Your task to perform on an android device: What's the weather going to be this weekend? Image 0: 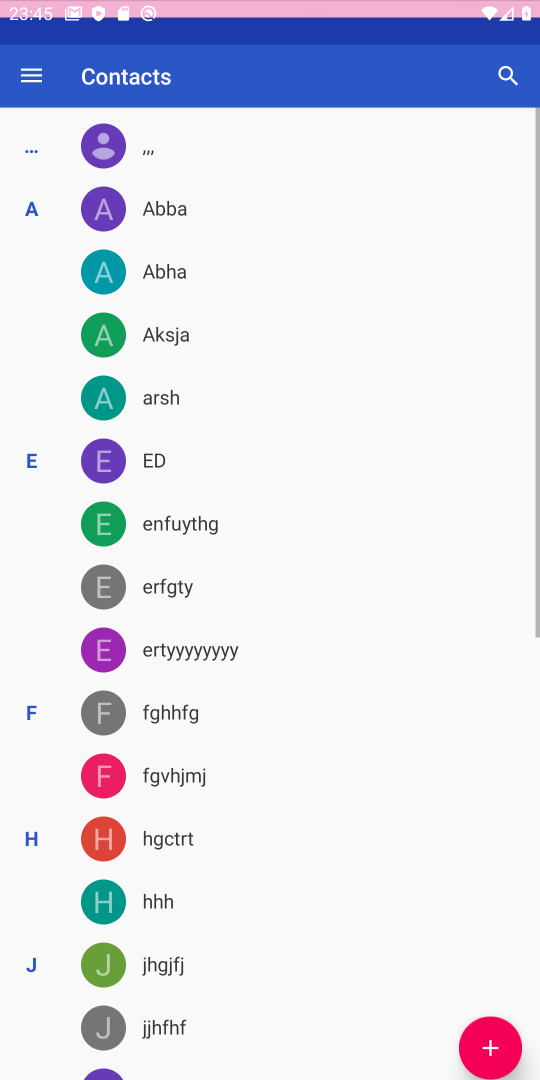
Step 0: press back button
Your task to perform on an android device: What's the weather going to be this weekend? Image 1: 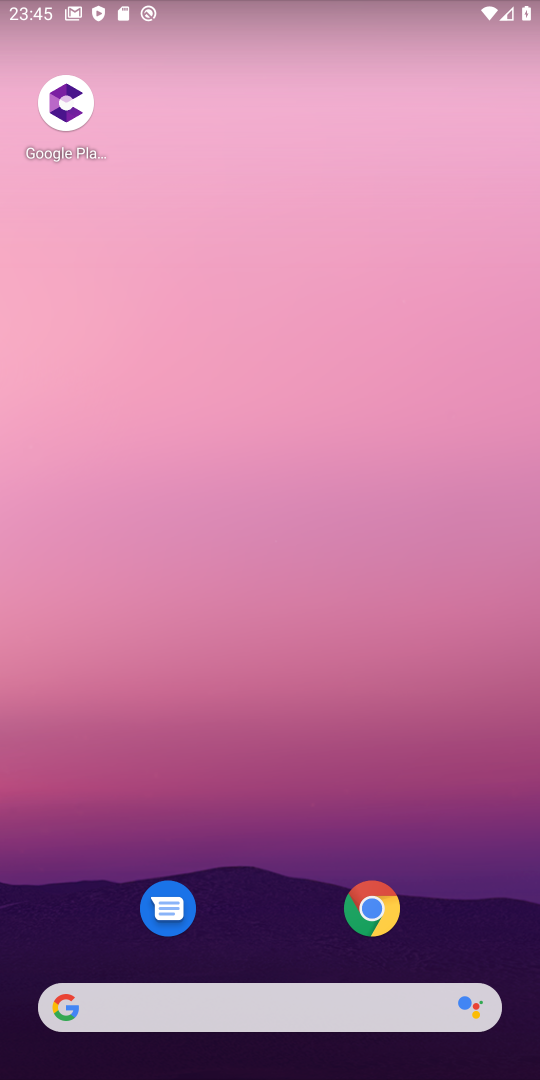
Step 1: drag from (425, 937) to (260, 152)
Your task to perform on an android device: What's the weather going to be this weekend? Image 2: 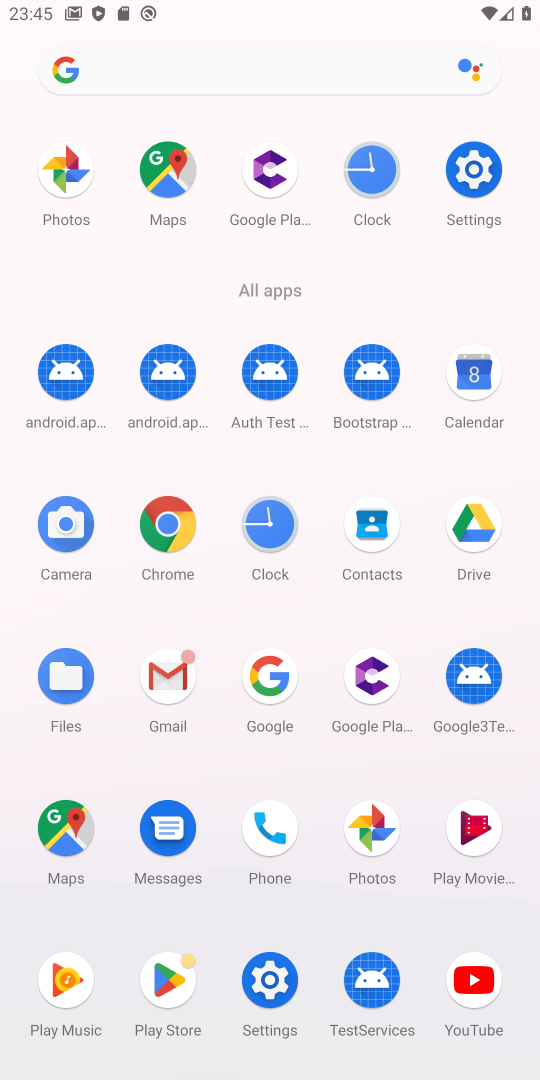
Step 2: click (174, 534)
Your task to perform on an android device: What's the weather going to be this weekend? Image 3: 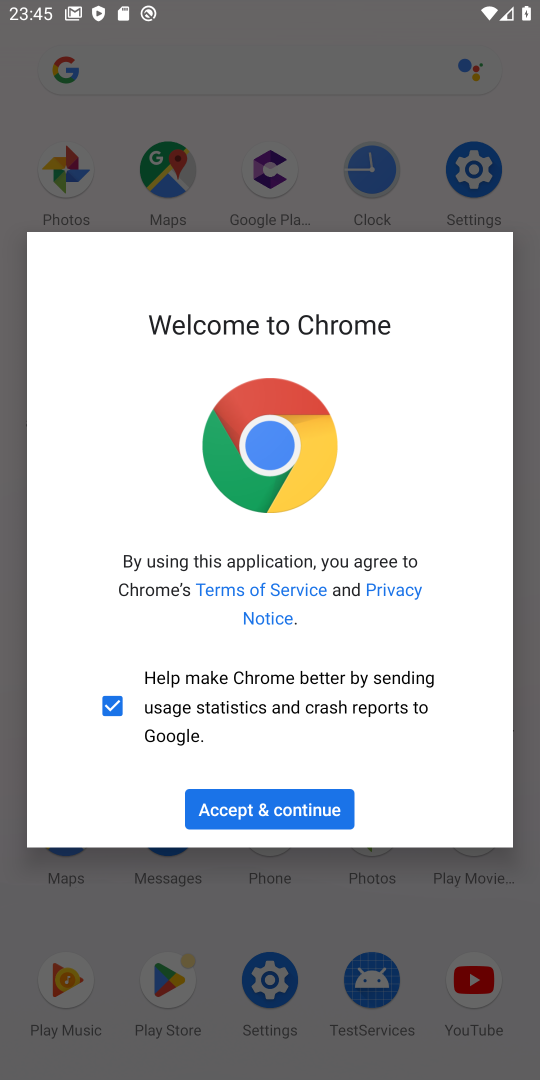
Step 3: click (265, 805)
Your task to perform on an android device: What's the weather going to be this weekend? Image 4: 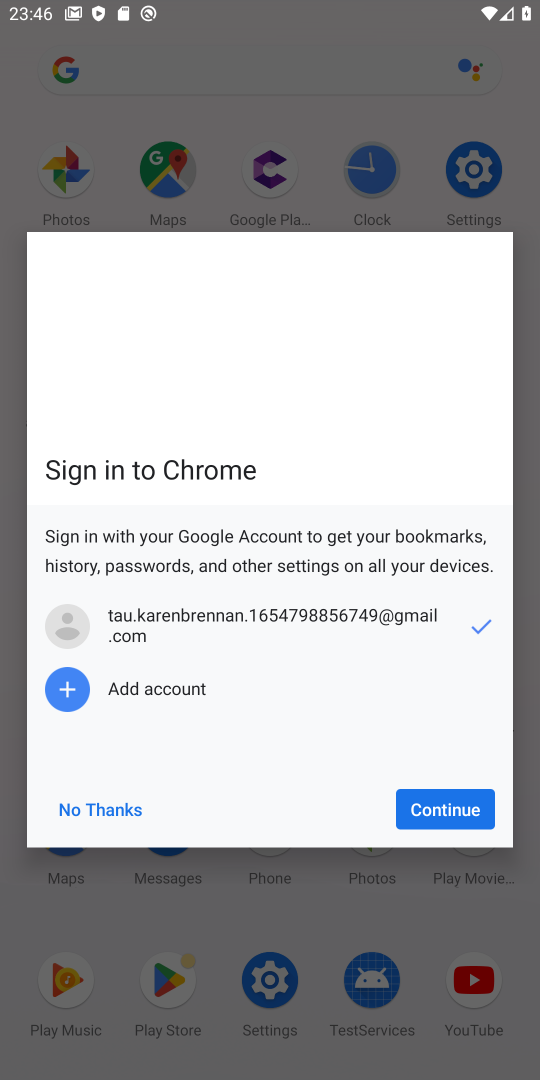
Step 4: click (416, 808)
Your task to perform on an android device: What's the weather going to be this weekend? Image 5: 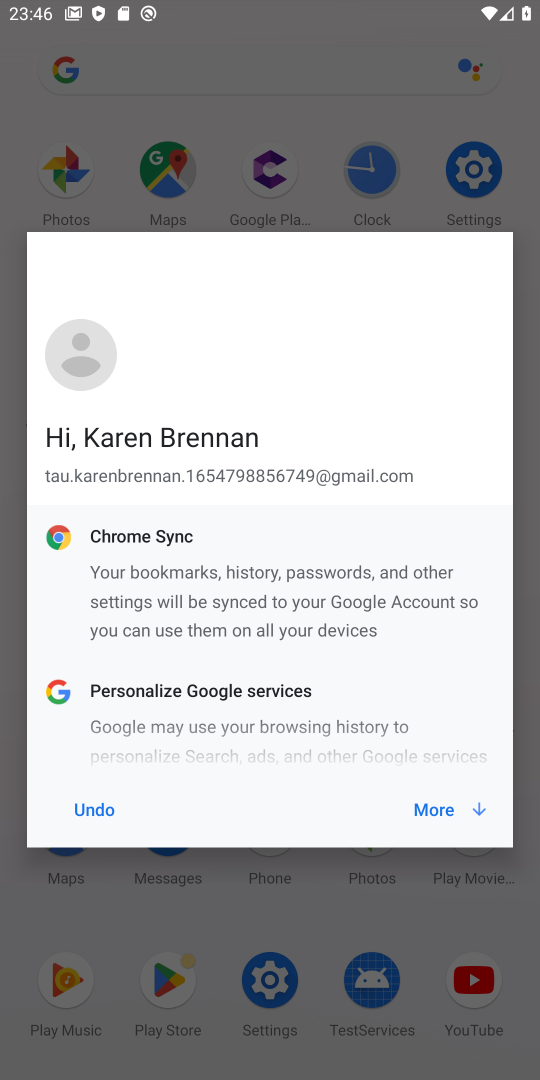
Step 5: click (416, 808)
Your task to perform on an android device: What's the weather going to be this weekend? Image 6: 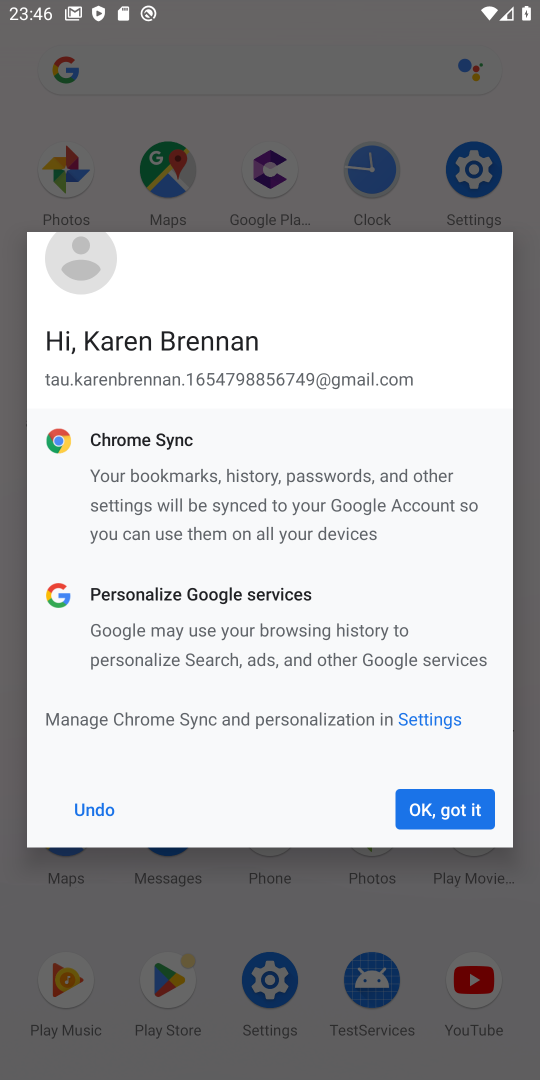
Step 6: click (416, 808)
Your task to perform on an android device: What's the weather going to be this weekend? Image 7: 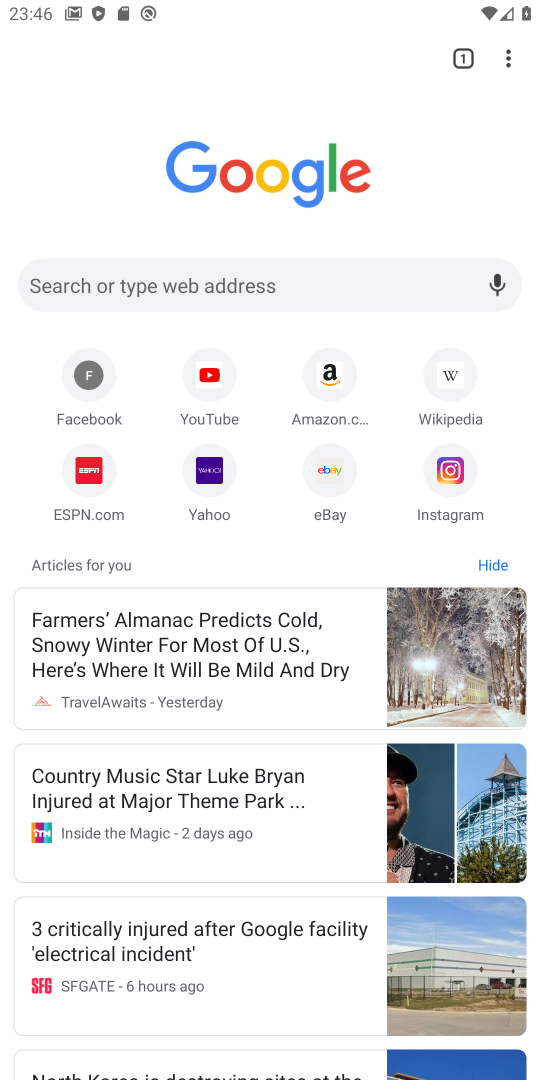
Step 7: click (270, 282)
Your task to perform on an android device: What's the weather going to be this weekend? Image 8: 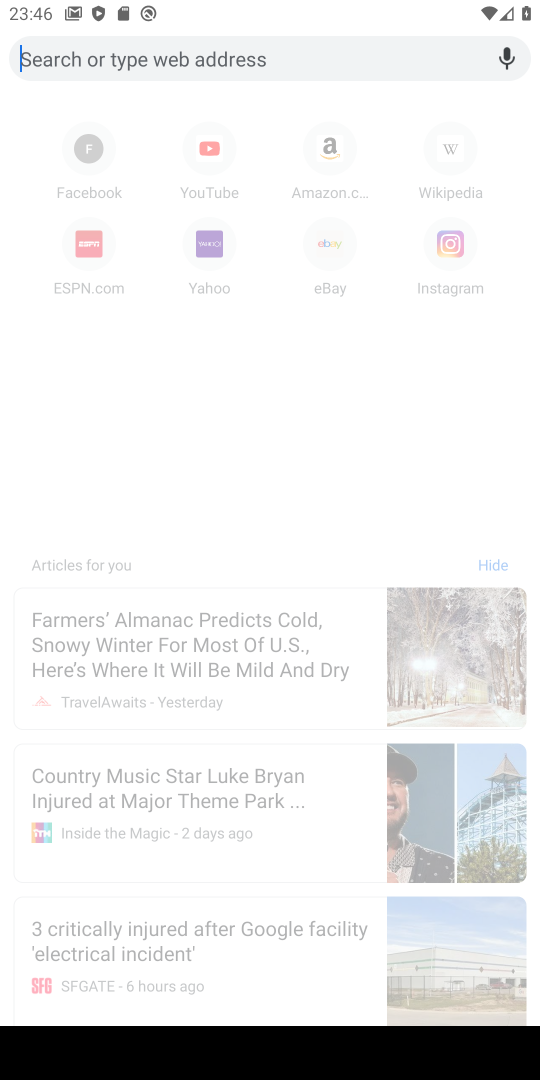
Step 8: type "What's the weather going to be this weekend?"
Your task to perform on an android device: What's the weather going to be this weekend? Image 9: 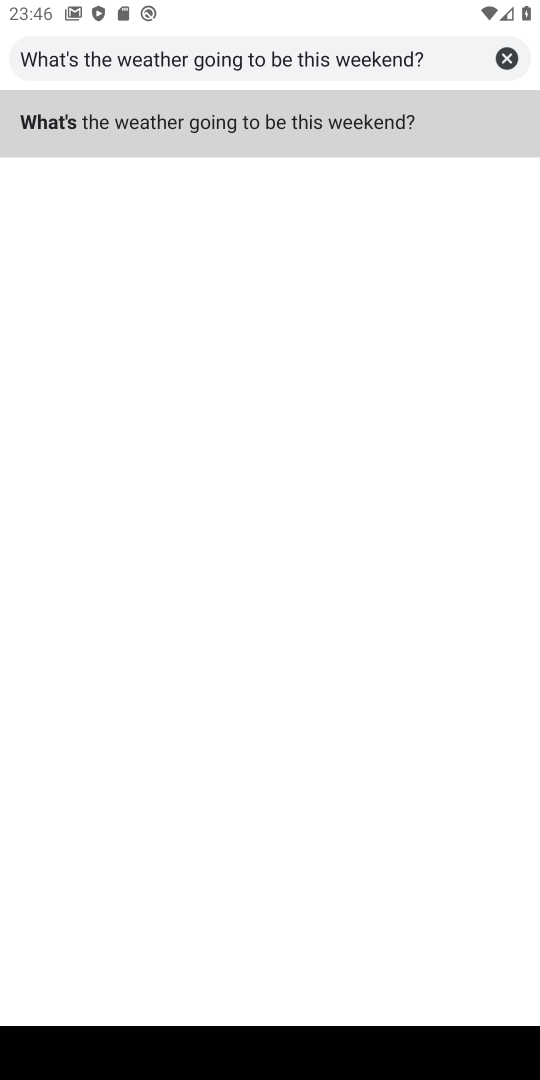
Step 9: click (405, 120)
Your task to perform on an android device: What's the weather going to be this weekend? Image 10: 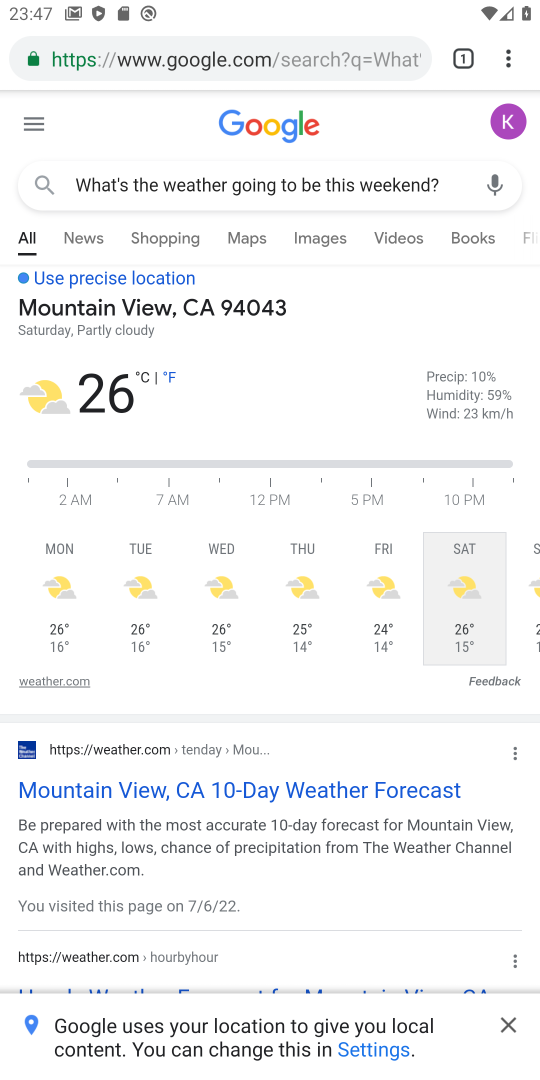
Step 10: task complete